Your task to perform on an android device: Show me popular games on the Play Store Image 0: 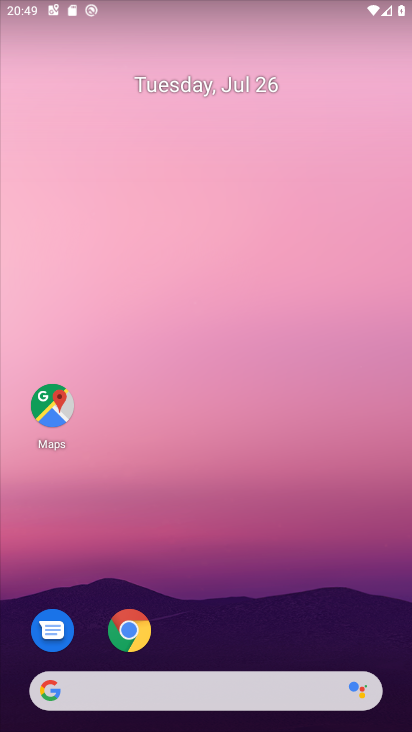
Step 0: drag from (386, 694) to (175, 40)
Your task to perform on an android device: Show me popular games on the Play Store Image 1: 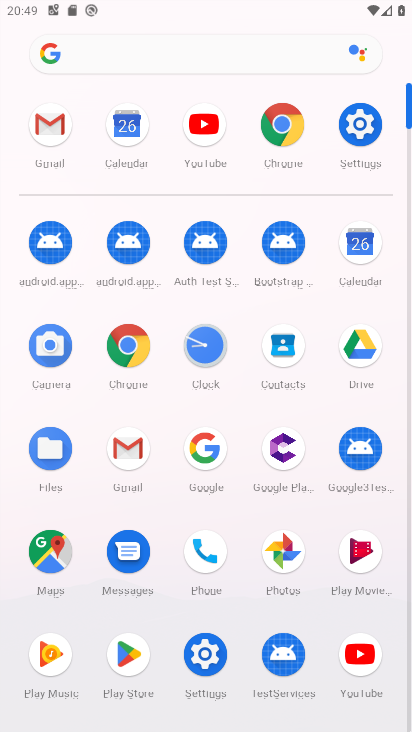
Step 1: click (127, 641)
Your task to perform on an android device: Show me popular games on the Play Store Image 2: 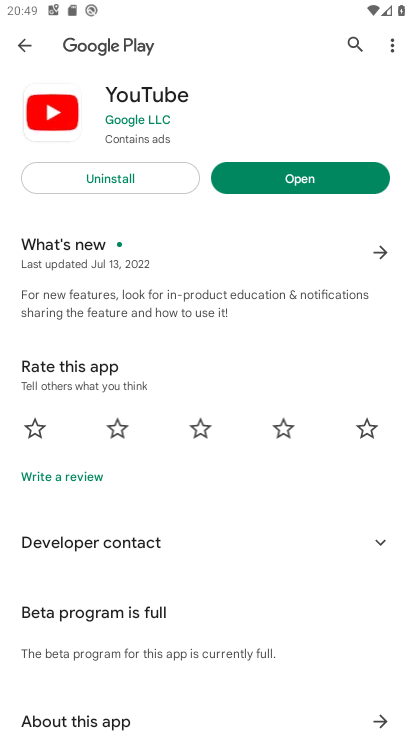
Step 2: click (17, 47)
Your task to perform on an android device: Show me popular games on the Play Store Image 3: 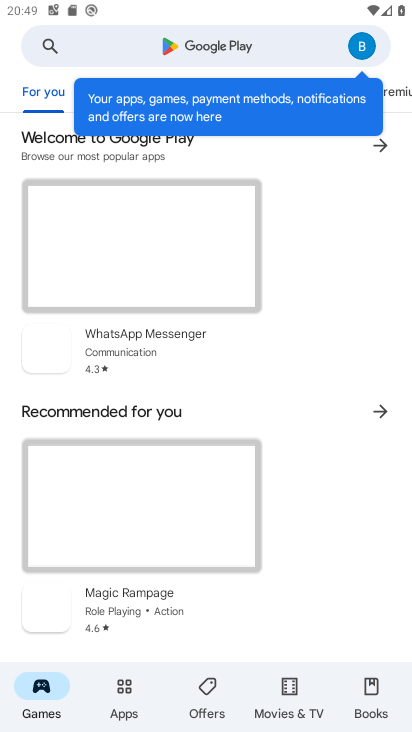
Step 3: click (122, 42)
Your task to perform on an android device: Show me popular games on the Play Store Image 4: 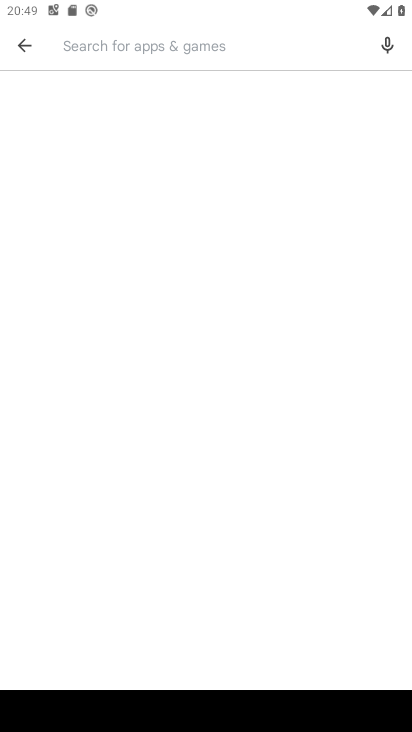
Step 4: type "popular games on the Play Stor"
Your task to perform on an android device: Show me popular games on the Play Store Image 5: 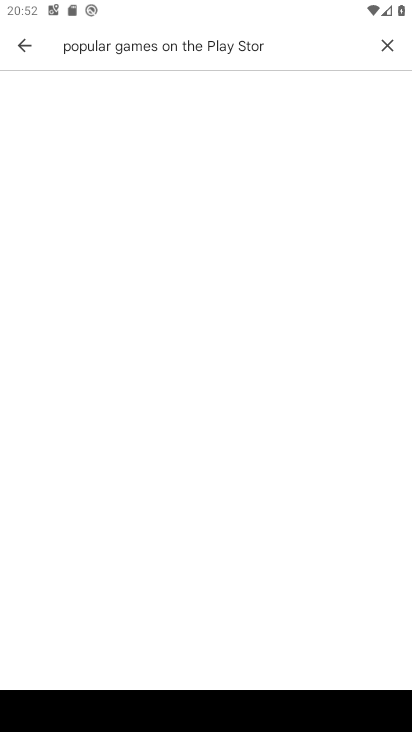
Step 5: task complete